Your task to perform on an android device: Go to Android settings Image 0: 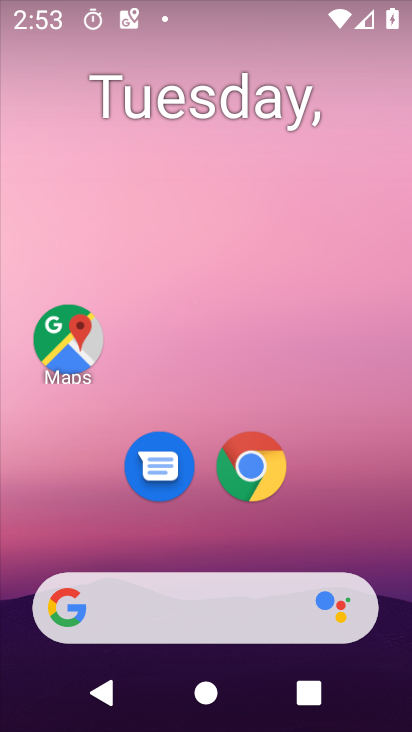
Step 0: drag from (373, 526) to (373, 182)
Your task to perform on an android device: Go to Android settings Image 1: 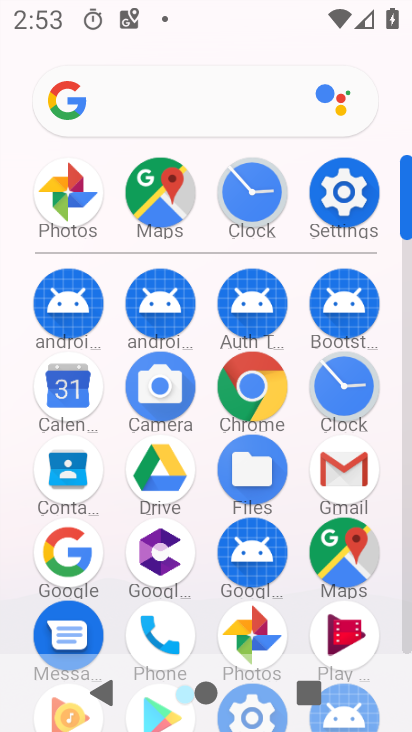
Step 1: click (346, 217)
Your task to perform on an android device: Go to Android settings Image 2: 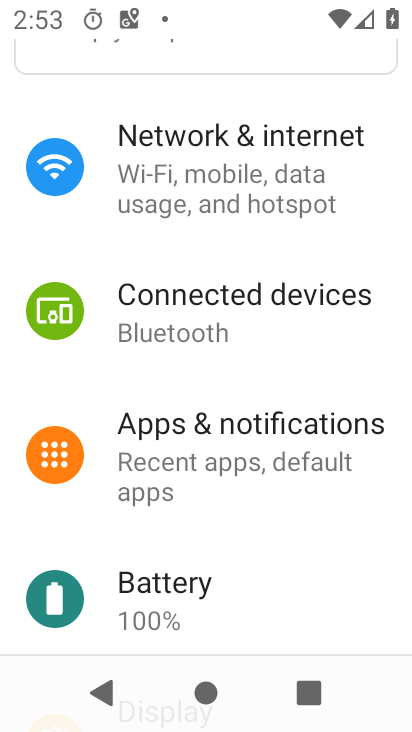
Step 2: drag from (376, 203) to (374, 341)
Your task to perform on an android device: Go to Android settings Image 3: 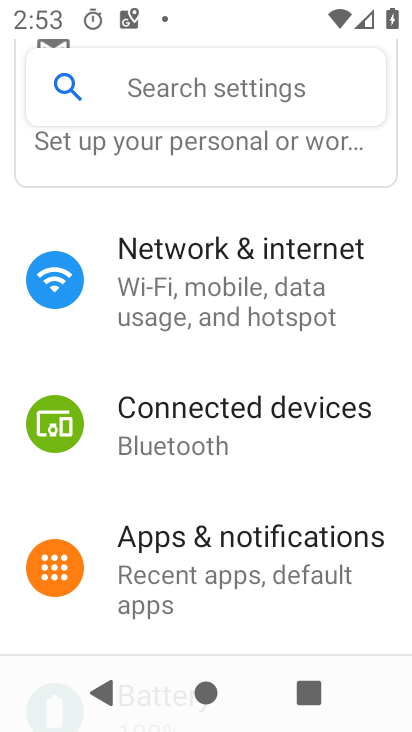
Step 3: drag from (374, 485) to (384, 341)
Your task to perform on an android device: Go to Android settings Image 4: 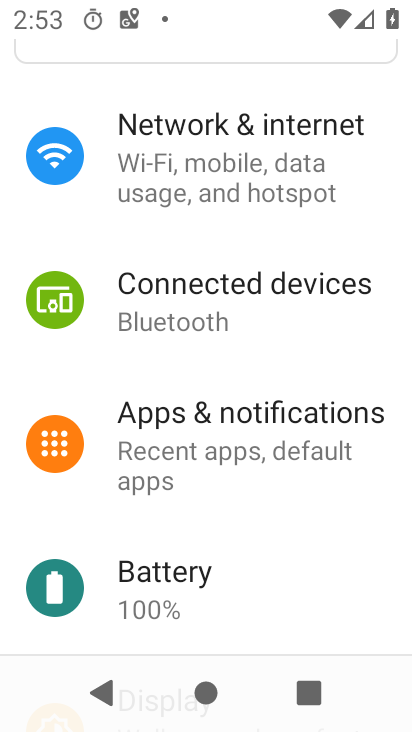
Step 4: drag from (362, 518) to (355, 382)
Your task to perform on an android device: Go to Android settings Image 5: 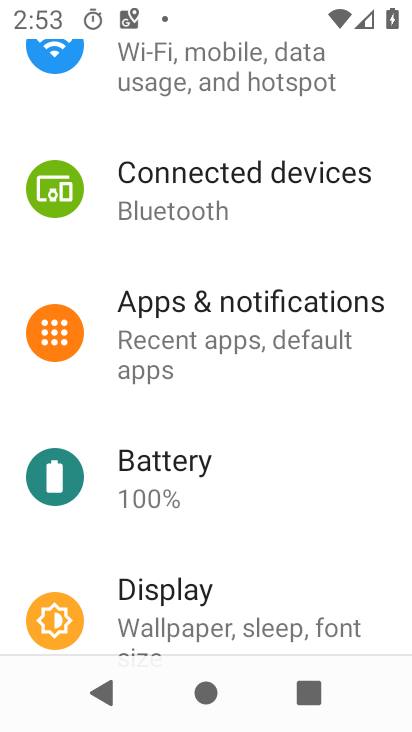
Step 5: drag from (357, 536) to (339, 442)
Your task to perform on an android device: Go to Android settings Image 6: 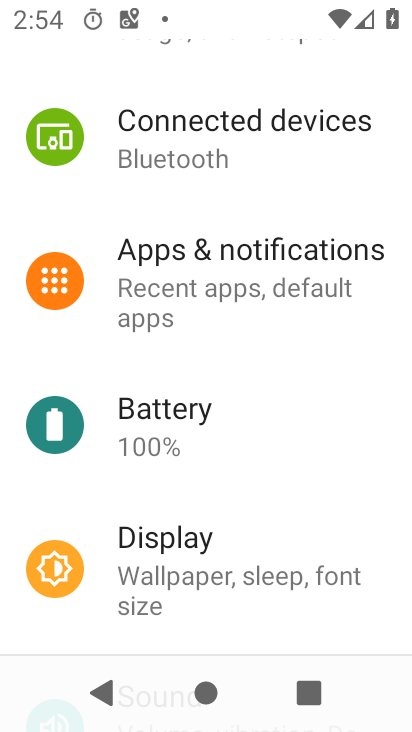
Step 6: drag from (334, 490) to (343, 347)
Your task to perform on an android device: Go to Android settings Image 7: 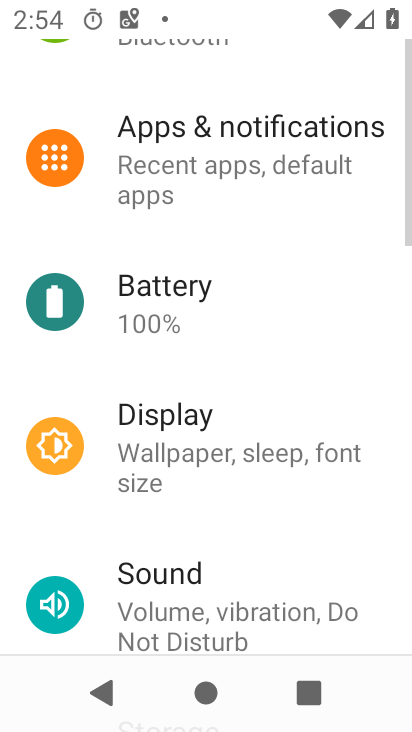
Step 7: drag from (335, 543) to (334, 424)
Your task to perform on an android device: Go to Android settings Image 8: 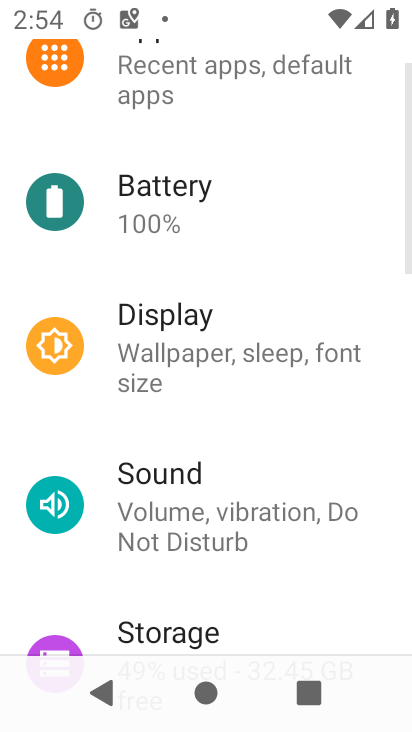
Step 8: drag from (356, 576) to (344, 382)
Your task to perform on an android device: Go to Android settings Image 9: 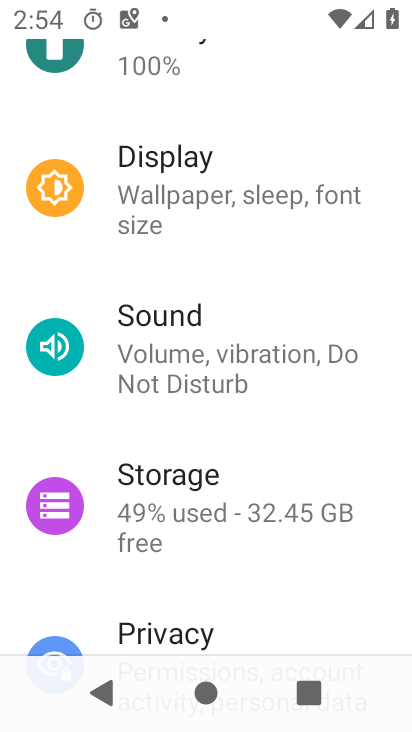
Step 9: drag from (338, 608) to (347, 418)
Your task to perform on an android device: Go to Android settings Image 10: 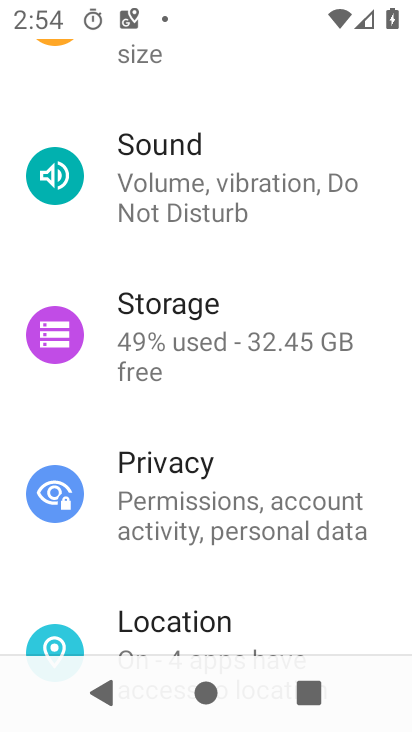
Step 10: drag from (368, 576) to (366, 407)
Your task to perform on an android device: Go to Android settings Image 11: 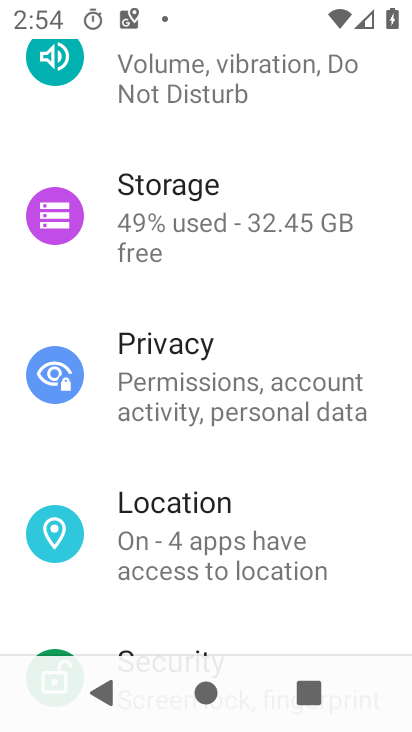
Step 11: drag from (357, 608) to (356, 411)
Your task to perform on an android device: Go to Android settings Image 12: 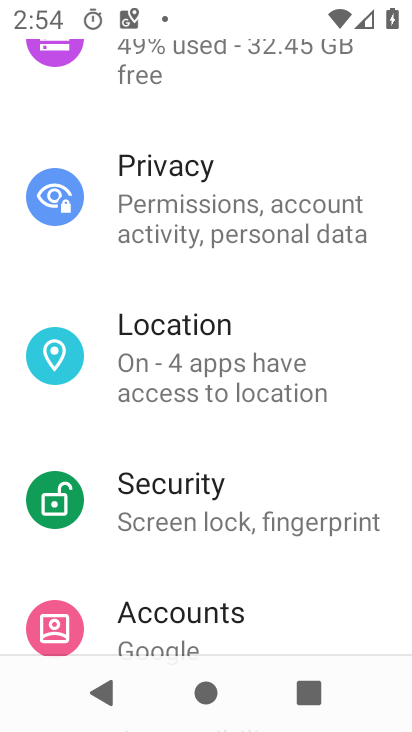
Step 12: drag from (354, 605) to (355, 383)
Your task to perform on an android device: Go to Android settings Image 13: 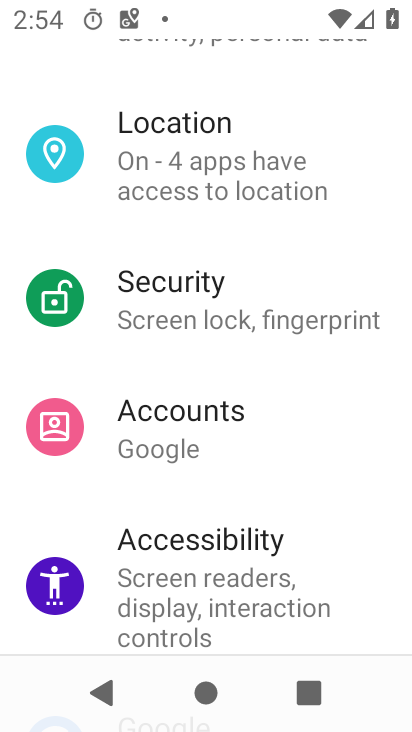
Step 13: drag from (359, 579) to (355, 429)
Your task to perform on an android device: Go to Android settings Image 14: 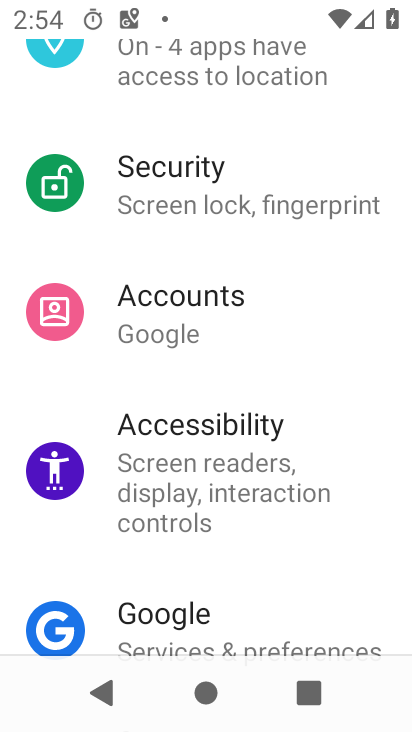
Step 14: drag from (360, 549) to (343, 317)
Your task to perform on an android device: Go to Android settings Image 15: 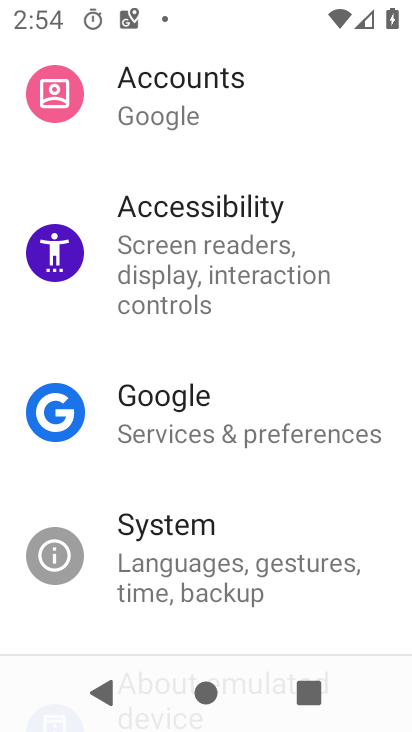
Step 15: click (240, 591)
Your task to perform on an android device: Go to Android settings Image 16: 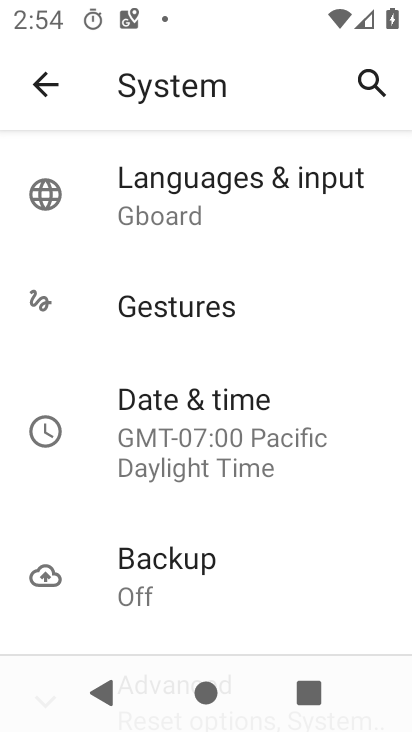
Step 16: drag from (305, 568) to (313, 262)
Your task to perform on an android device: Go to Android settings Image 17: 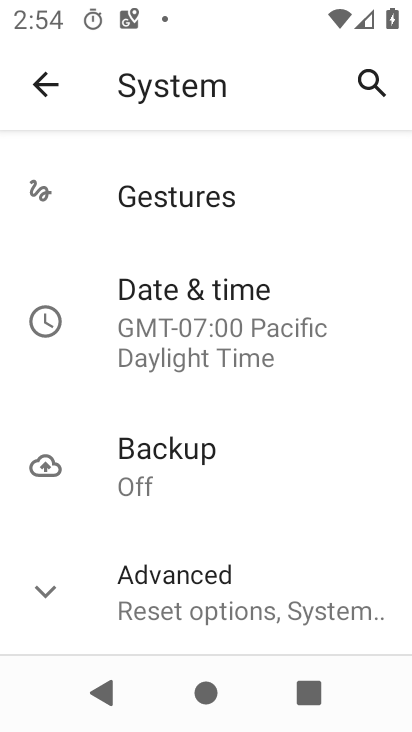
Step 17: click (257, 599)
Your task to perform on an android device: Go to Android settings Image 18: 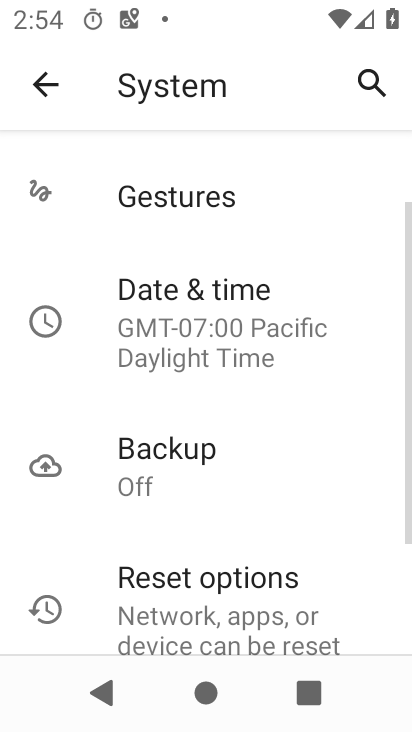
Step 18: task complete